Your task to perform on an android device: change timer sound Image 0: 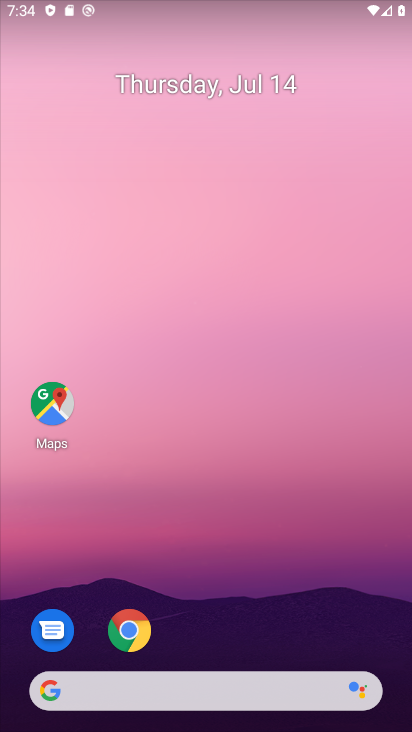
Step 0: drag from (257, 632) to (316, 195)
Your task to perform on an android device: change timer sound Image 1: 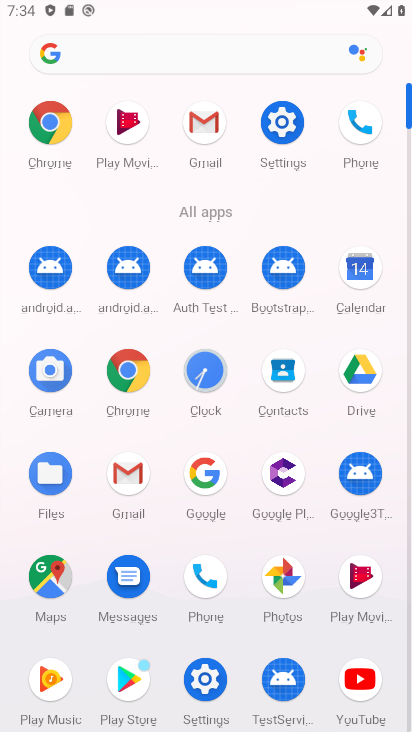
Step 1: click (203, 355)
Your task to perform on an android device: change timer sound Image 2: 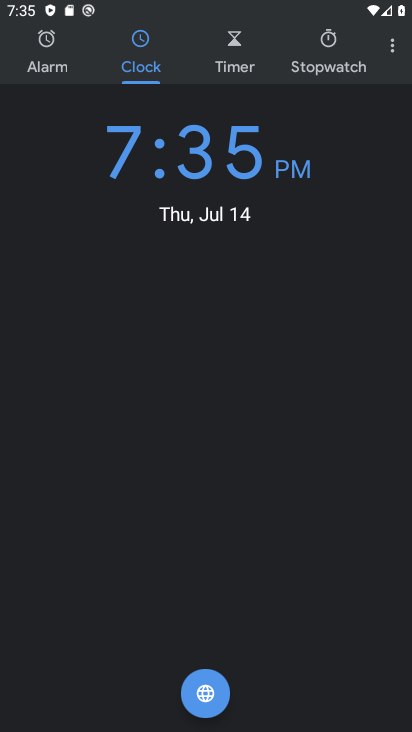
Step 2: click (387, 43)
Your task to perform on an android device: change timer sound Image 3: 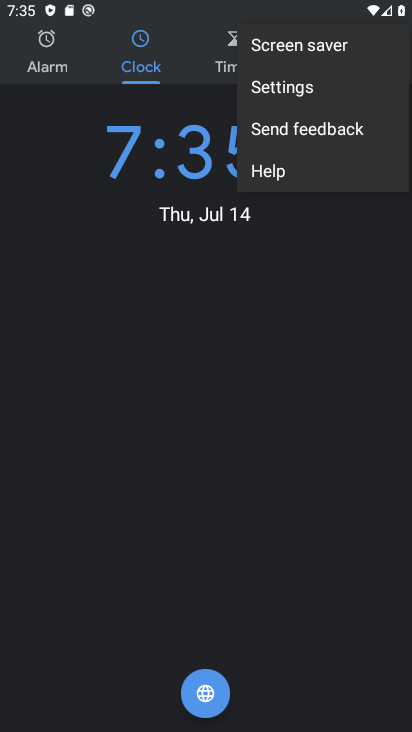
Step 3: click (318, 96)
Your task to perform on an android device: change timer sound Image 4: 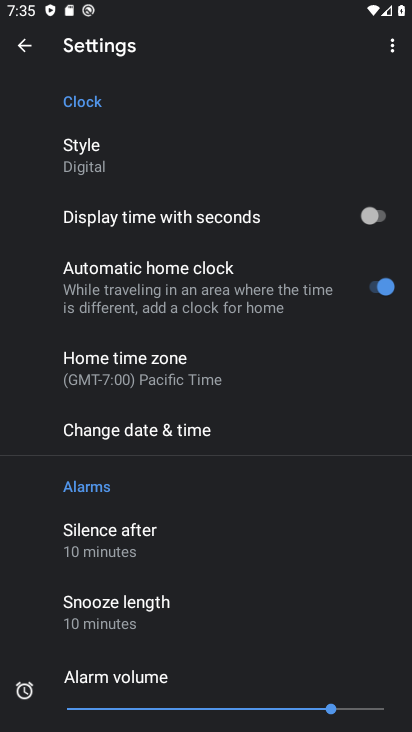
Step 4: drag from (220, 454) to (138, 140)
Your task to perform on an android device: change timer sound Image 5: 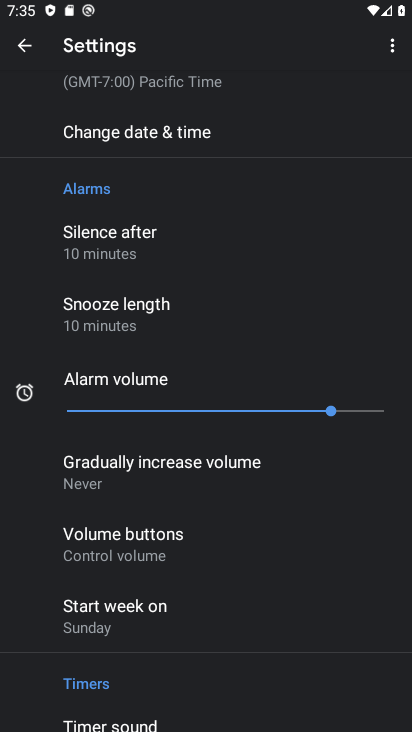
Step 5: drag from (185, 634) to (222, 239)
Your task to perform on an android device: change timer sound Image 6: 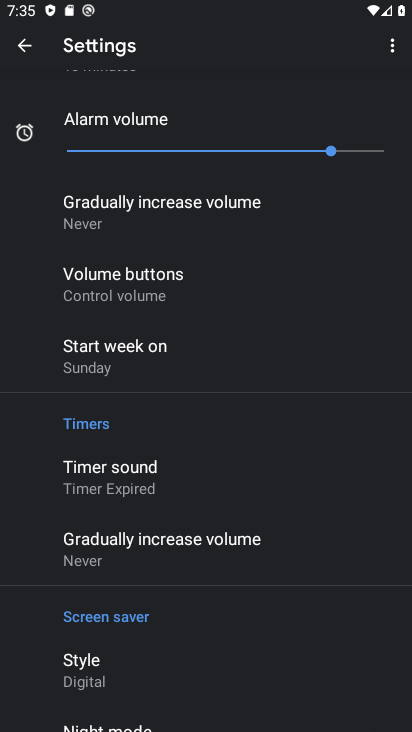
Step 6: click (108, 471)
Your task to perform on an android device: change timer sound Image 7: 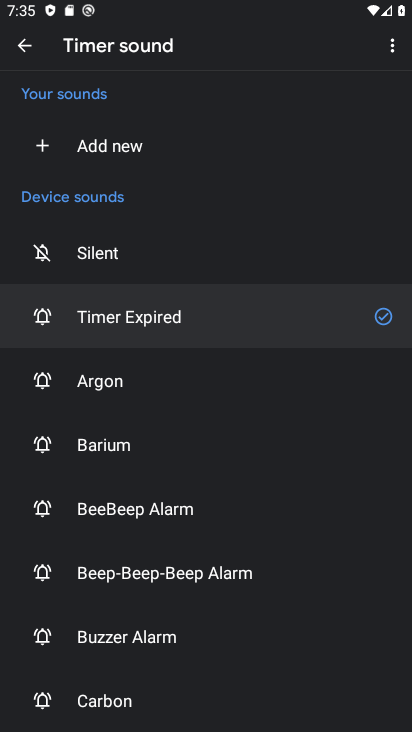
Step 7: click (214, 591)
Your task to perform on an android device: change timer sound Image 8: 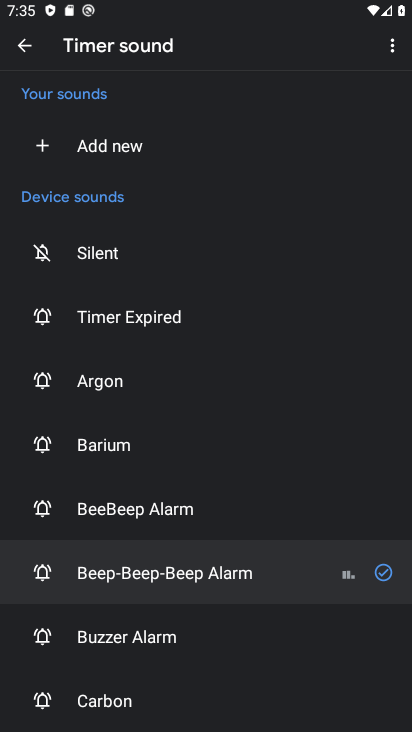
Step 8: task complete